Your task to perform on an android device: toggle pop-ups in chrome Image 0: 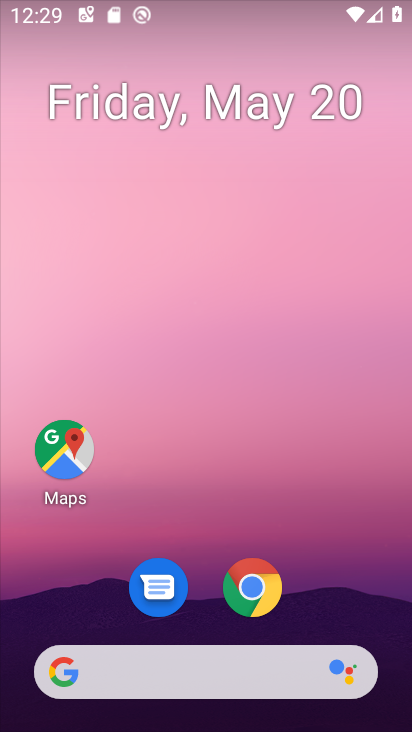
Step 0: drag from (368, 603) to (363, 165)
Your task to perform on an android device: toggle pop-ups in chrome Image 1: 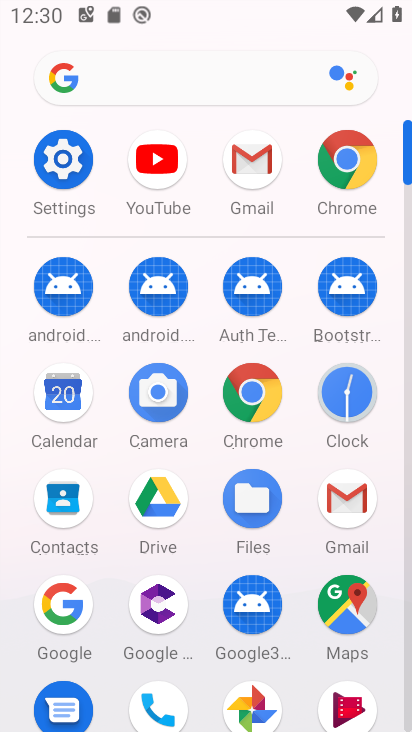
Step 1: click (250, 420)
Your task to perform on an android device: toggle pop-ups in chrome Image 2: 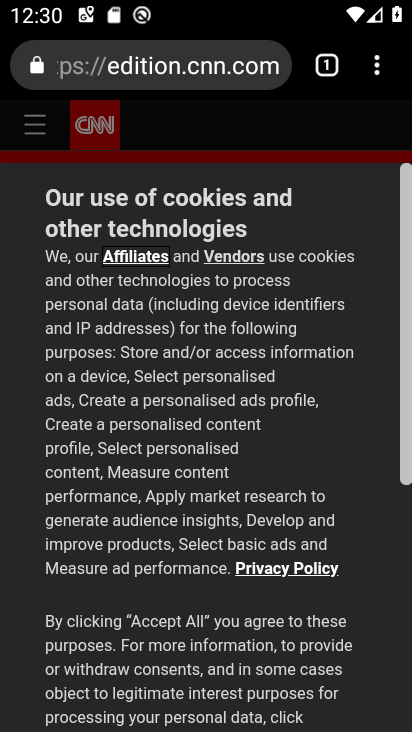
Step 2: click (376, 78)
Your task to perform on an android device: toggle pop-ups in chrome Image 3: 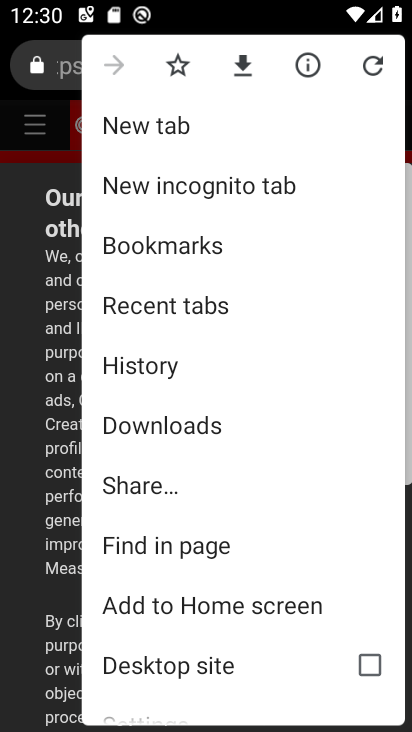
Step 3: drag from (285, 454) to (297, 350)
Your task to perform on an android device: toggle pop-ups in chrome Image 4: 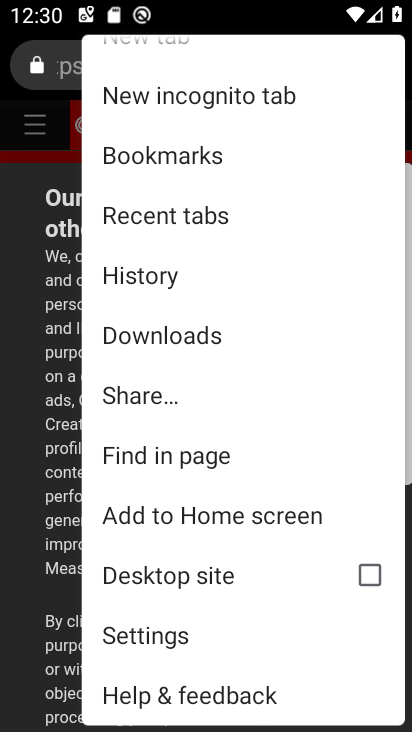
Step 4: click (189, 637)
Your task to perform on an android device: toggle pop-ups in chrome Image 5: 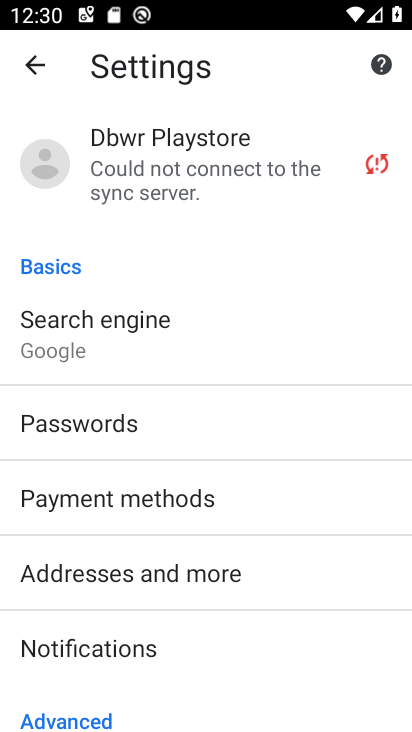
Step 5: drag from (308, 613) to (325, 503)
Your task to perform on an android device: toggle pop-ups in chrome Image 6: 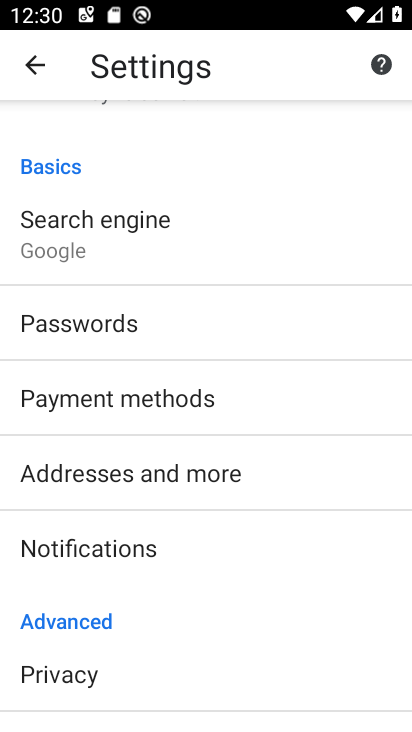
Step 6: drag from (320, 617) to (320, 537)
Your task to perform on an android device: toggle pop-ups in chrome Image 7: 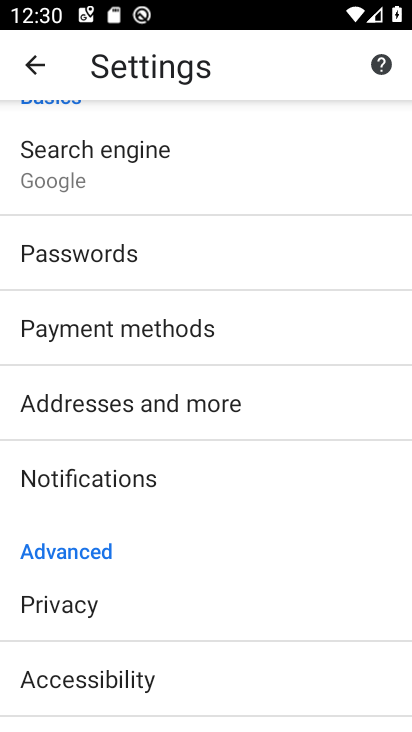
Step 7: drag from (309, 673) to (326, 567)
Your task to perform on an android device: toggle pop-ups in chrome Image 8: 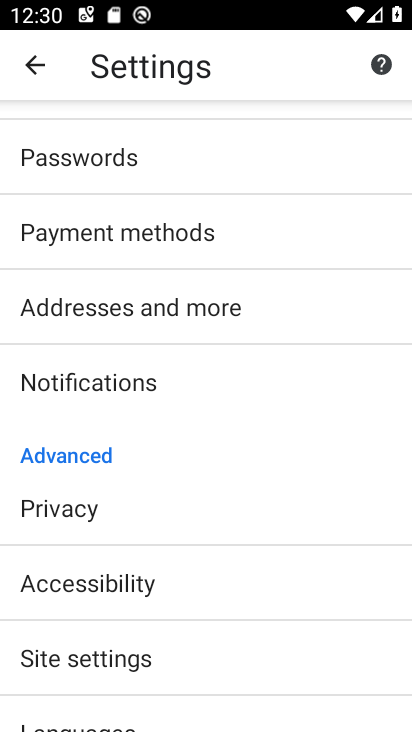
Step 8: drag from (319, 666) to (326, 580)
Your task to perform on an android device: toggle pop-ups in chrome Image 9: 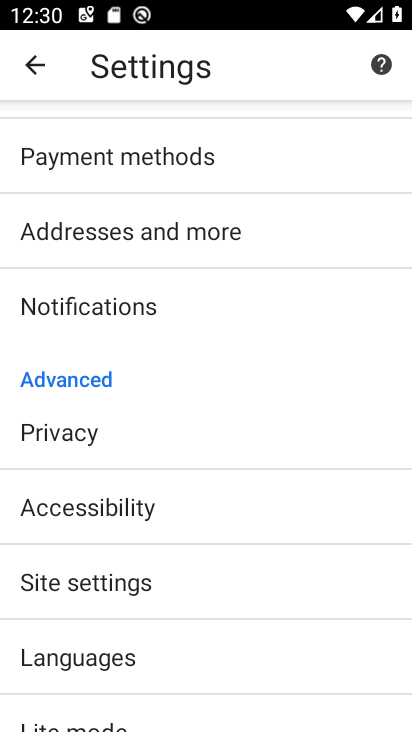
Step 9: drag from (327, 651) to (327, 577)
Your task to perform on an android device: toggle pop-ups in chrome Image 10: 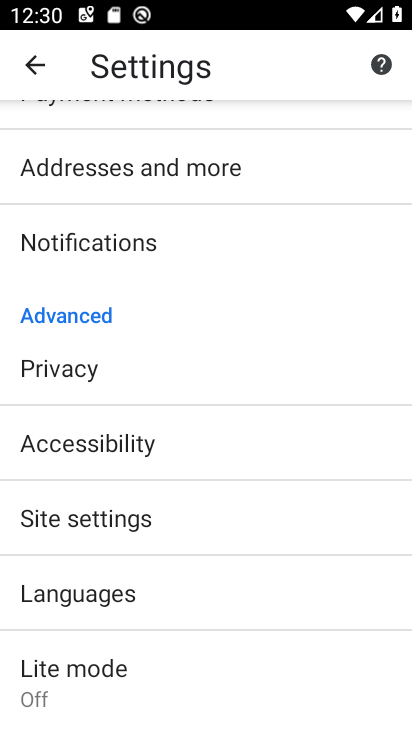
Step 10: click (267, 533)
Your task to perform on an android device: toggle pop-ups in chrome Image 11: 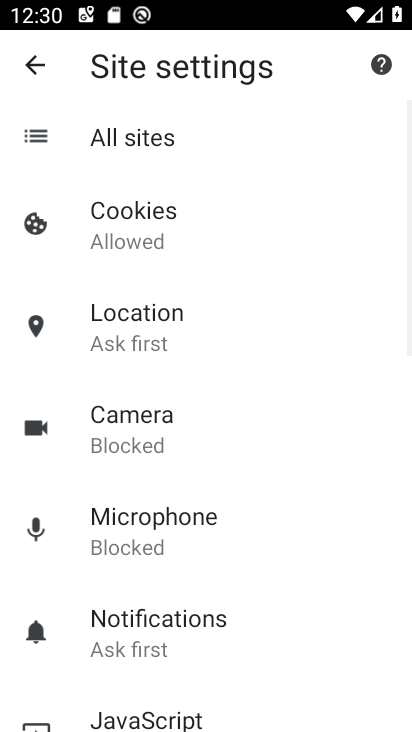
Step 11: drag from (298, 613) to (300, 541)
Your task to perform on an android device: toggle pop-ups in chrome Image 12: 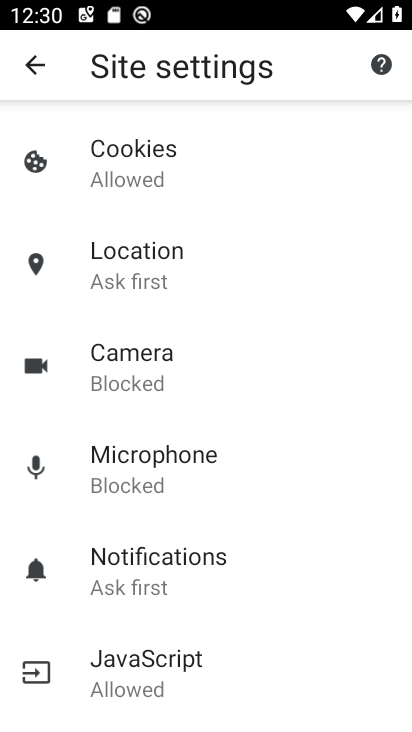
Step 12: drag from (305, 632) to (307, 561)
Your task to perform on an android device: toggle pop-ups in chrome Image 13: 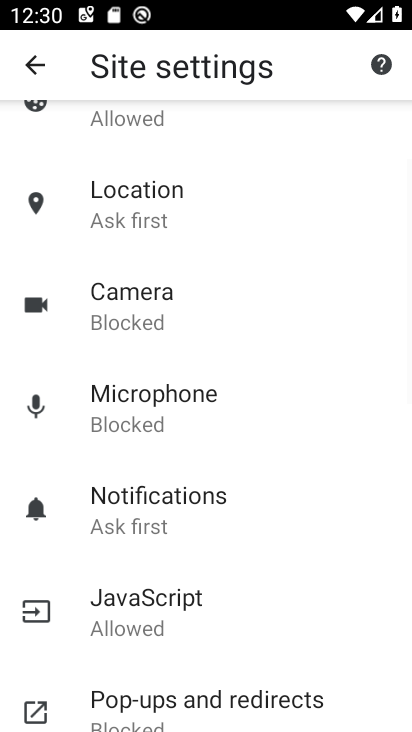
Step 13: drag from (317, 649) to (317, 572)
Your task to perform on an android device: toggle pop-ups in chrome Image 14: 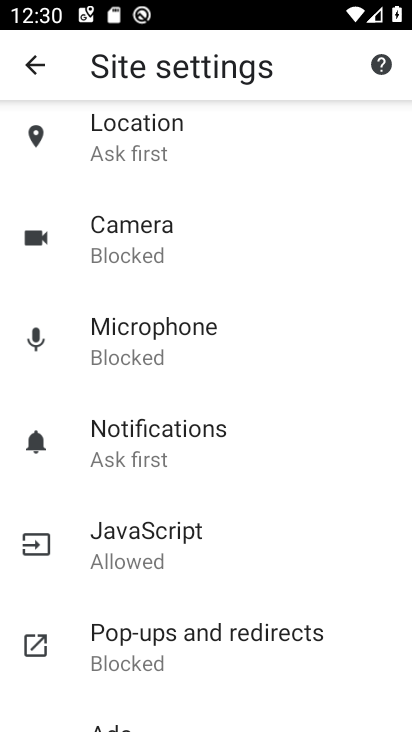
Step 14: drag from (330, 661) to (330, 560)
Your task to perform on an android device: toggle pop-ups in chrome Image 15: 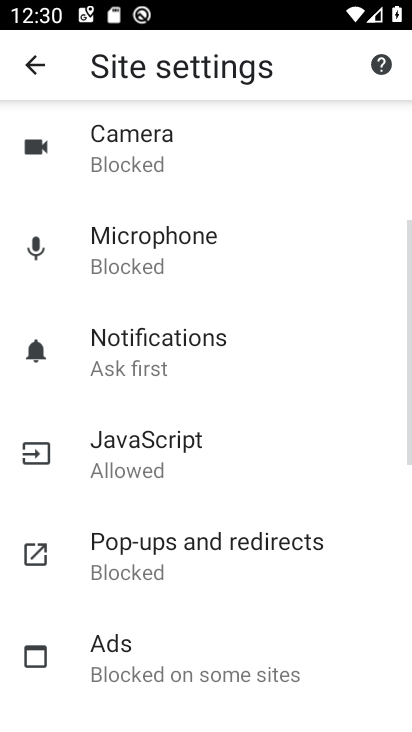
Step 15: drag from (330, 632) to (330, 537)
Your task to perform on an android device: toggle pop-ups in chrome Image 16: 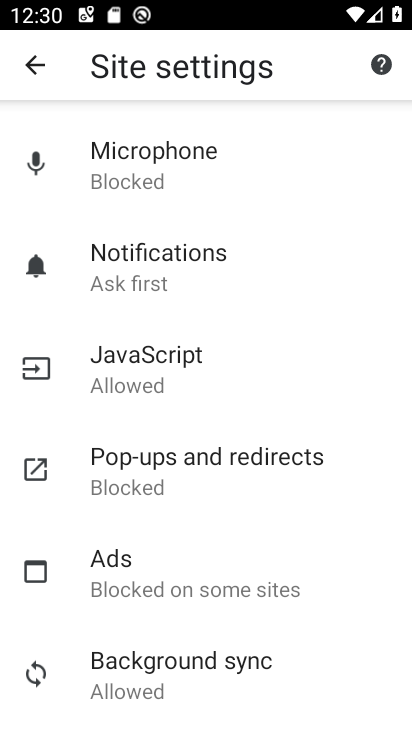
Step 16: click (281, 467)
Your task to perform on an android device: toggle pop-ups in chrome Image 17: 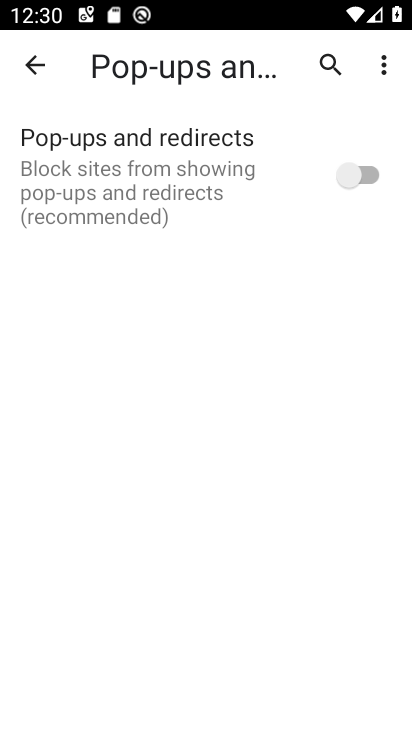
Step 17: click (351, 174)
Your task to perform on an android device: toggle pop-ups in chrome Image 18: 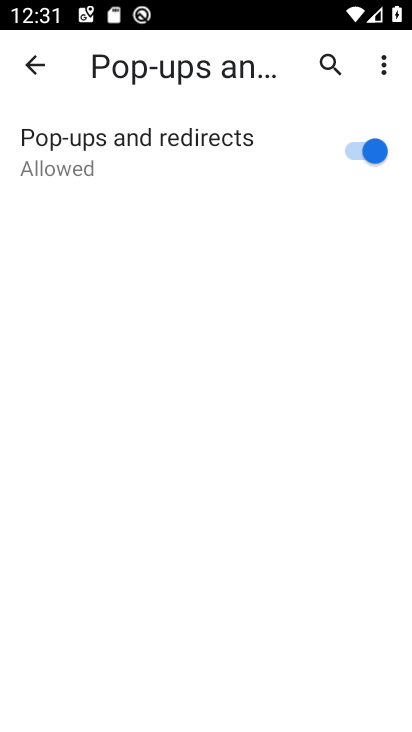
Step 18: task complete